Your task to perform on an android device: refresh tabs in the chrome app Image 0: 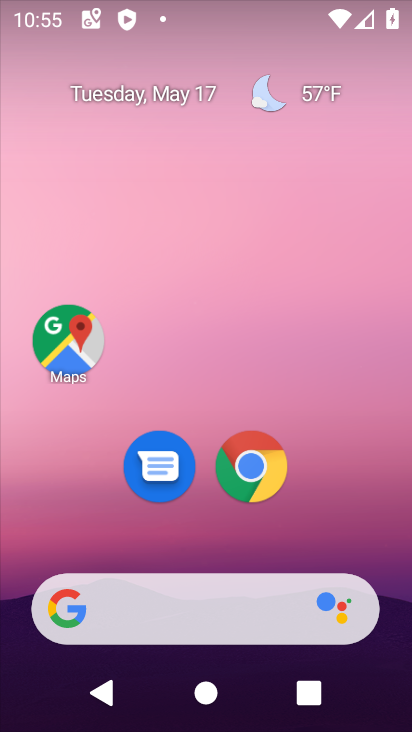
Step 0: drag from (180, 567) to (287, 19)
Your task to perform on an android device: refresh tabs in the chrome app Image 1: 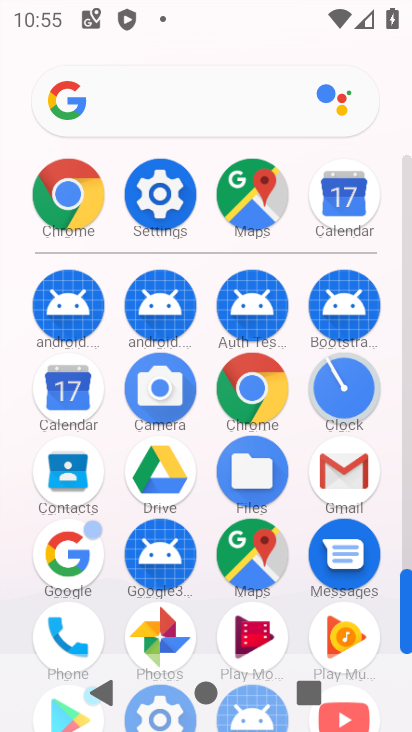
Step 1: click (272, 404)
Your task to perform on an android device: refresh tabs in the chrome app Image 2: 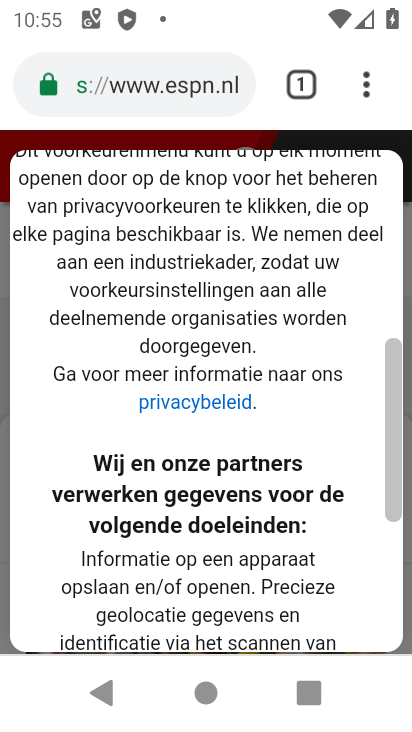
Step 2: click (366, 83)
Your task to perform on an android device: refresh tabs in the chrome app Image 3: 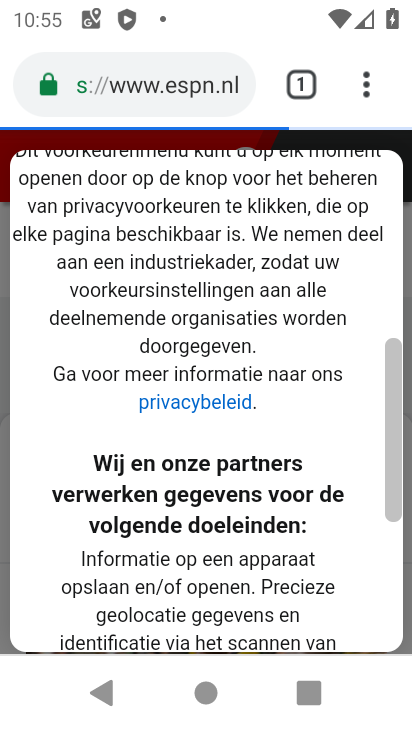
Step 3: click (364, 82)
Your task to perform on an android device: refresh tabs in the chrome app Image 4: 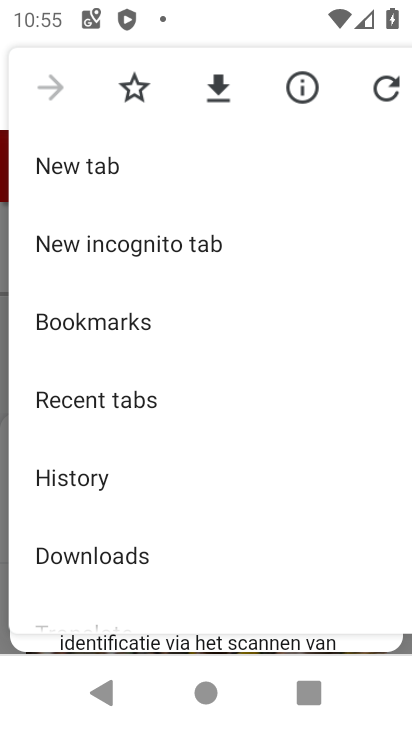
Step 4: click (389, 89)
Your task to perform on an android device: refresh tabs in the chrome app Image 5: 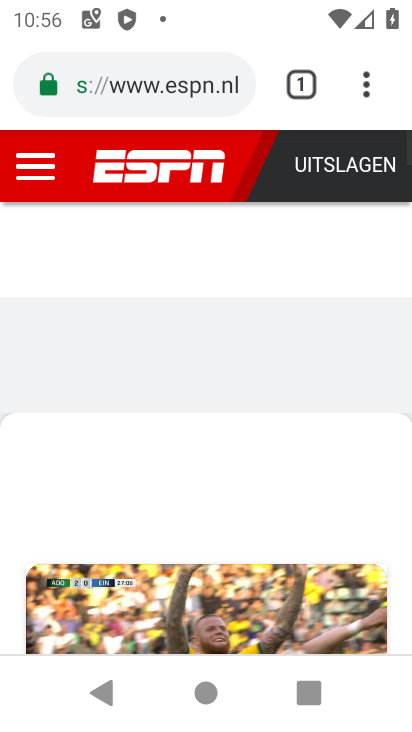
Step 5: task complete